Your task to perform on an android device: Do I have any events tomorrow? Image 0: 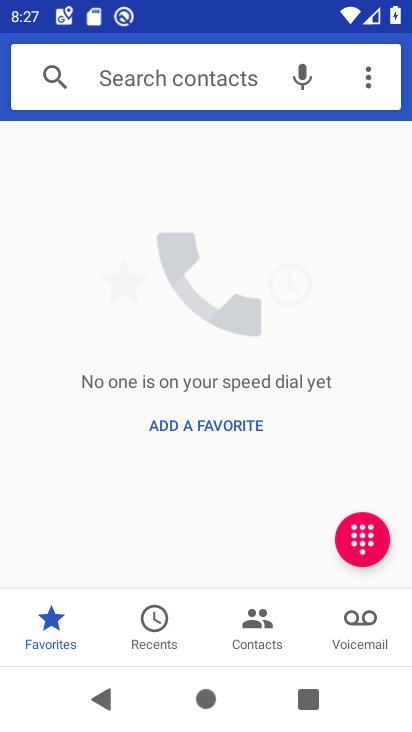
Step 0: press home button
Your task to perform on an android device: Do I have any events tomorrow? Image 1: 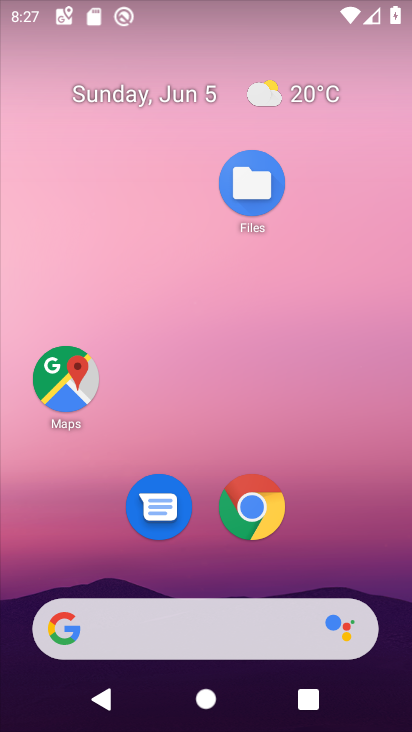
Step 1: drag from (200, 578) to (264, 20)
Your task to perform on an android device: Do I have any events tomorrow? Image 2: 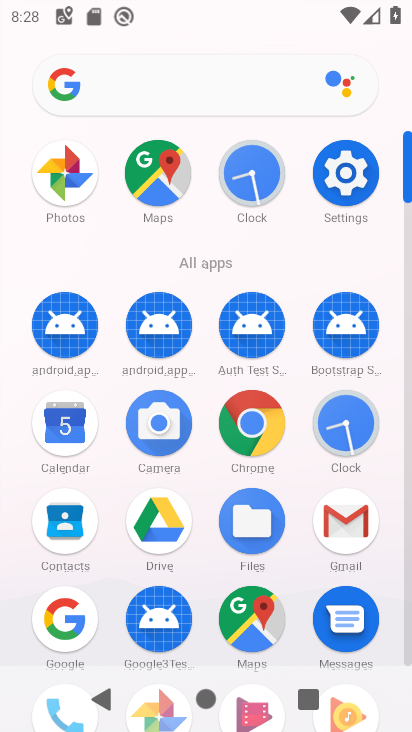
Step 2: click (73, 634)
Your task to perform on an android device: Do I have any events tomorrow? Image 3: 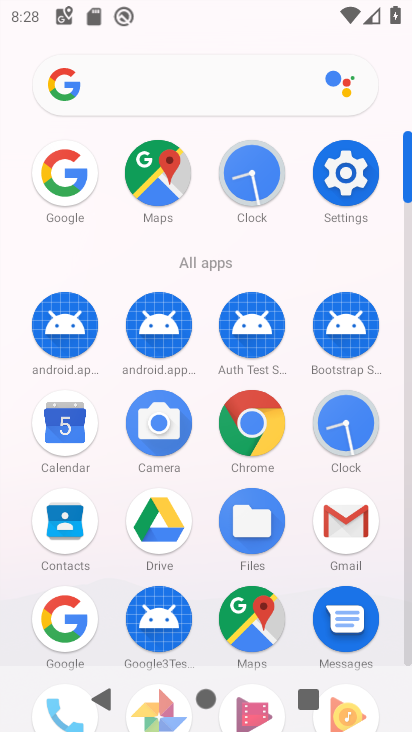
Step 3: click (75, 623)
Your task to perform on an android device: Do I have any events tomorrow? Image 4: 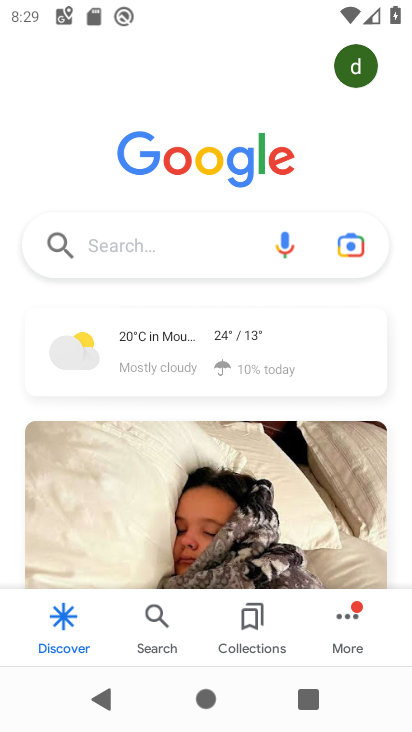
Step 4: click (128, 255)
Your task to perform on an android device: Do I have any events tomorrow? Image 5: 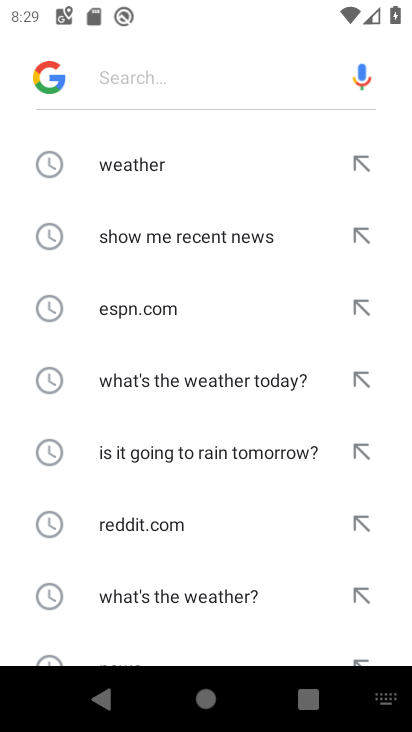
Step 5: click (164, 156)
Your task to perform on an android device: Do I have any events tomorrow? Image 6: 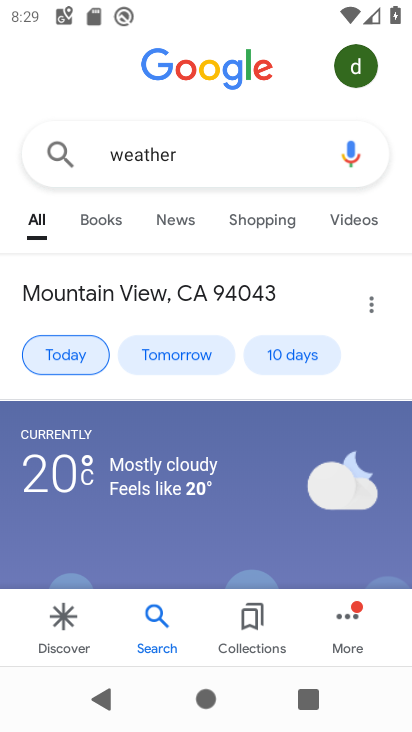
Step 6: click (165, 344)
Your task to perform on an android device: Do I have any events tomorrow? Image 7: 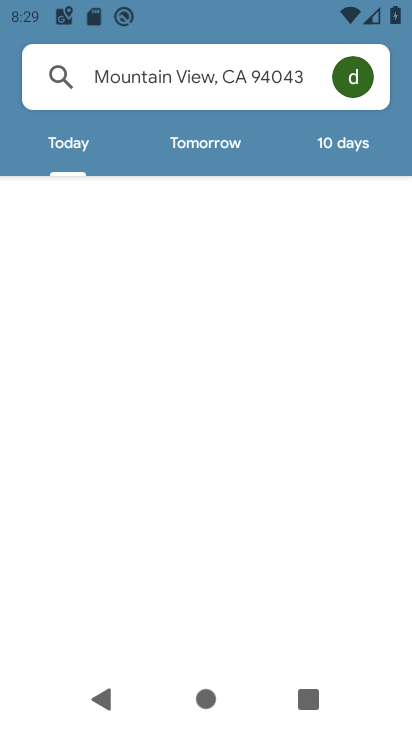
Step 7: task complete